Your task to perform on an android device: turn off data saver in the chrome app Image 0: 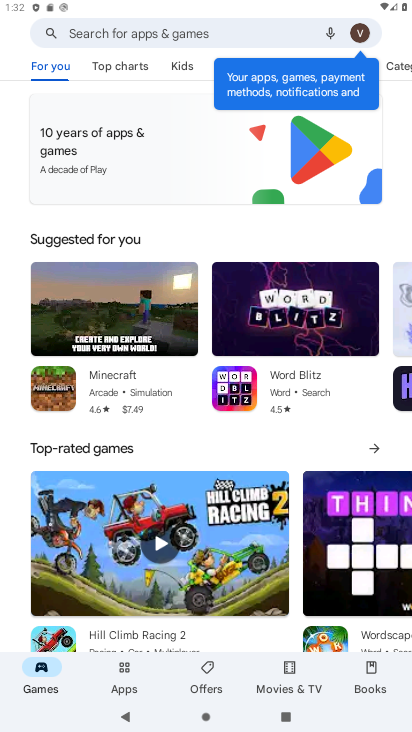
Step 0: press home button
Your task to perform on an android device: turn off data saver in the chrome app Image 1: 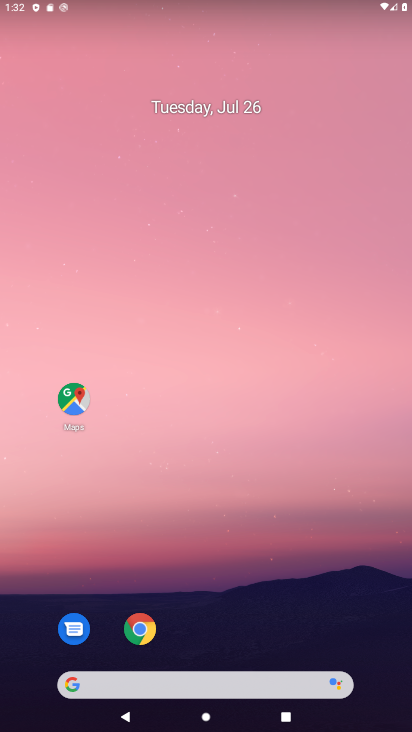
Step 1: drag from (273, 677) to (278, 8)
Your task to perform on an android device: turn off data saver in the chrome app Image 2: 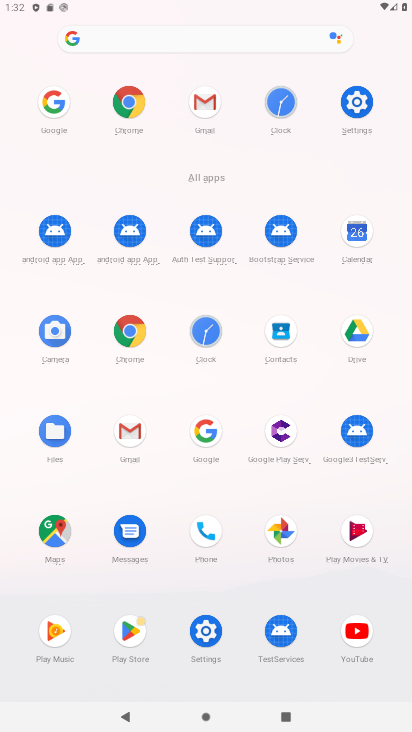
Step 2: click (135, 334)
Your task to perform on an android device: turn off data saver in the chrome app Image 3: 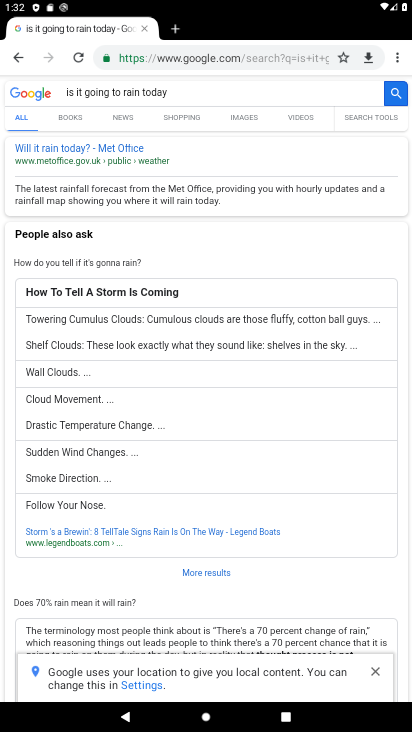
Step 3: drag from (389, 54) to (292, 353)
Your task to perform on an android device: turn off data saver in the chrome app Image 4: 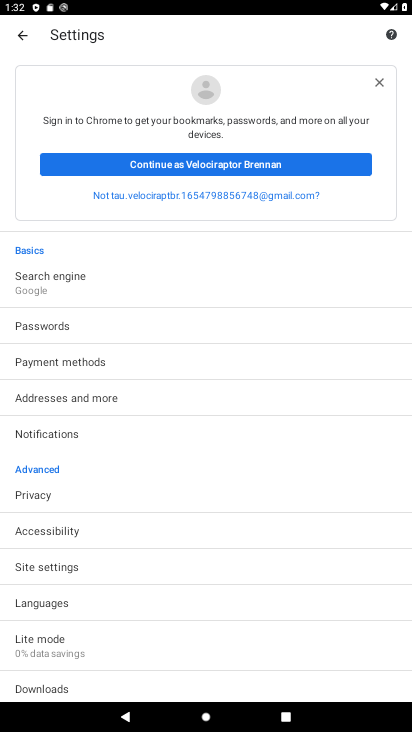
Step 4: click (51, 642)
Your task to perform on an android device: turn off data saver in the chrome app Image 5: 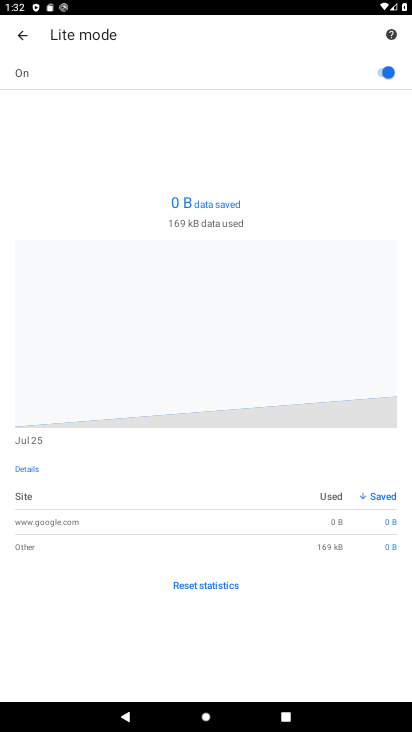
Step 5: click (380, 73)
Your task to perform on an android device: turn off data saver in the chrome app Image 6: 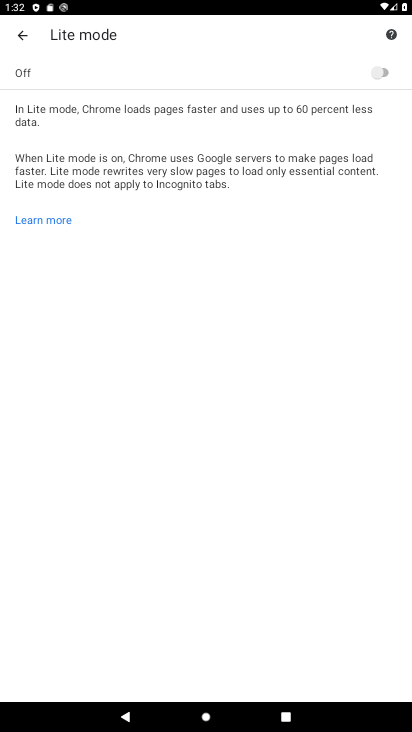
Step 6: task complete